Your task to perform on an android device: delete a single message in the gmail app Image 0: 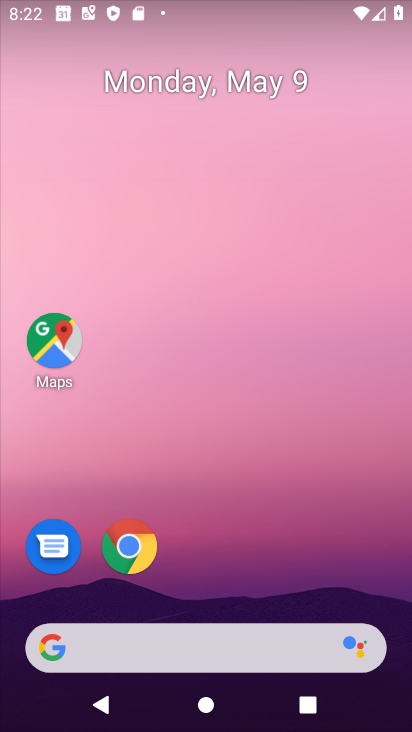
Step 0: drag from (249, 696) to (311, 186)
Your task to perform on an android device: delete a single message in the gmail app Image 1: 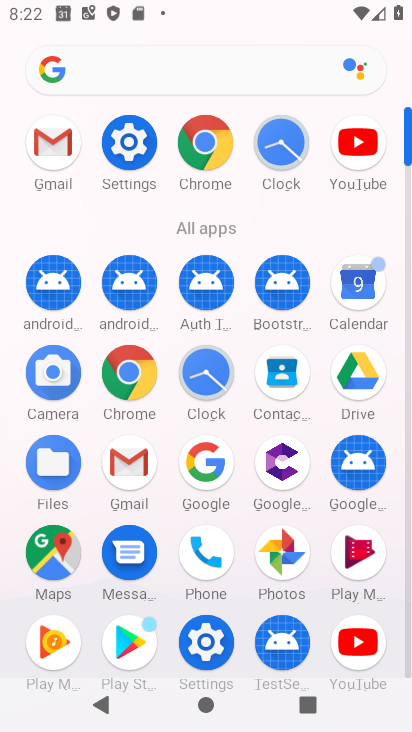
Step 1: click (63, 152)
Your task to perform on an android device: delete a single message in the gmail app Image 2: 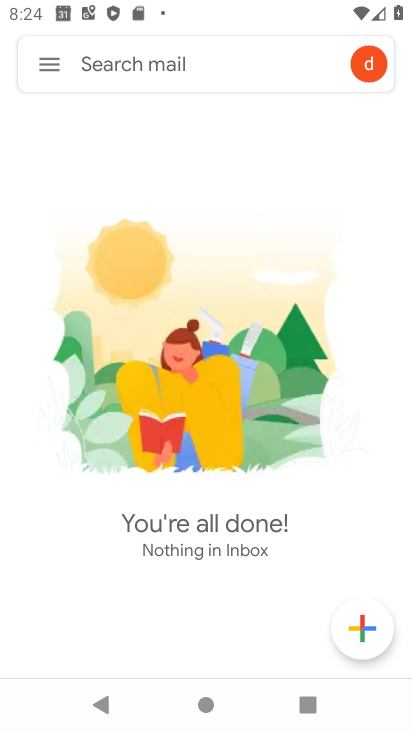
Step 2: task complete